Your task to perform on an android device: refresh tabs in the chrome app Image 0: 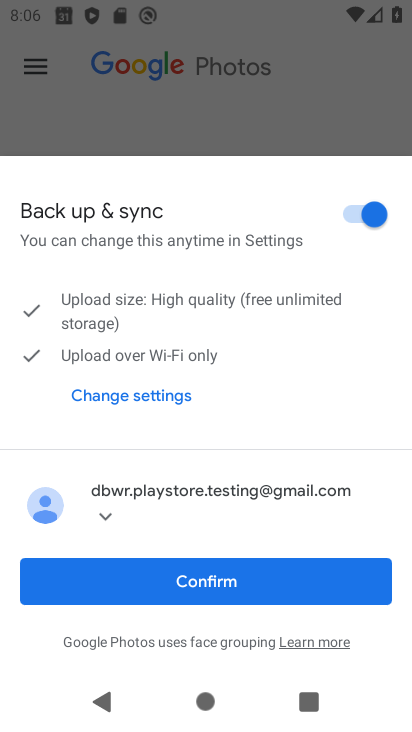
Step 0: press home button
Your task to perform on an android device: refresh tabs in the chrome app Image 1: 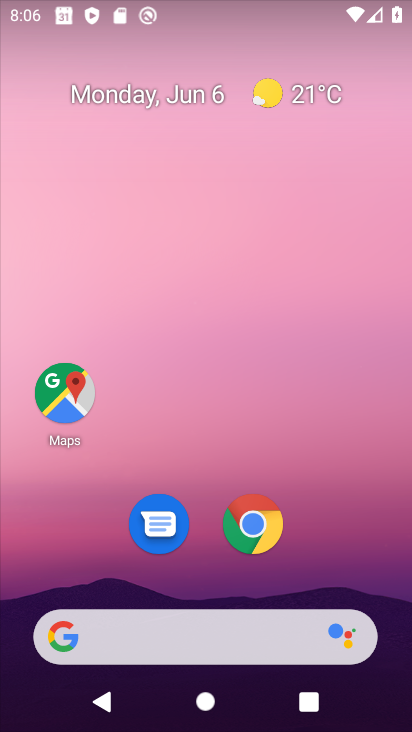
Step 1: click (256, 522)
Your task to perform on an android device: refresh tabs in the chrome app Image 2: 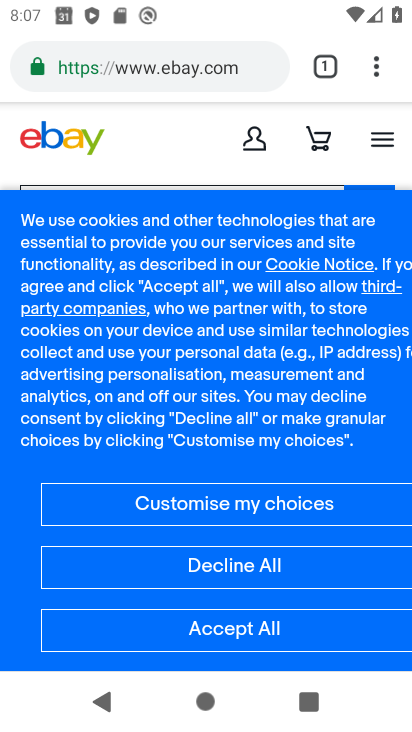
Step 2: click (372, 68)
Your task to perform on an android device: refresh tabs in the chrome app Image 3: 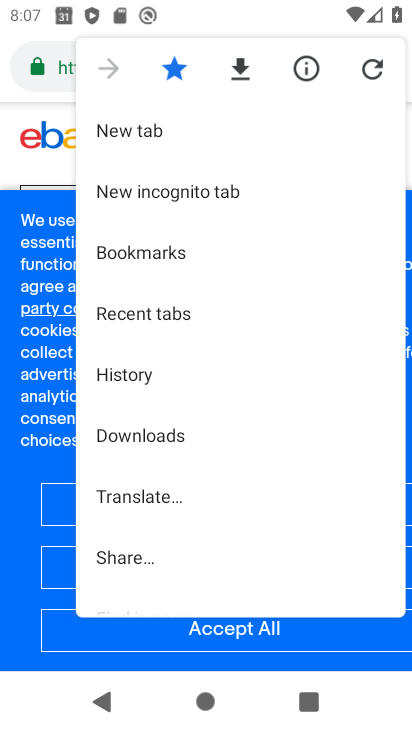
Step 3: click (372, 65)
Your task to perform on an android device: refresh tabs in the chrome app Image 4: 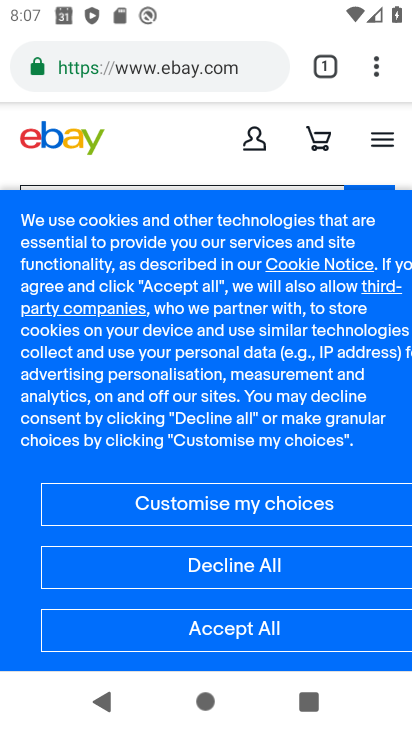
Step 4: task complete